Your task to perform on an android device: Go to calendar. Show me events next week Image 0: 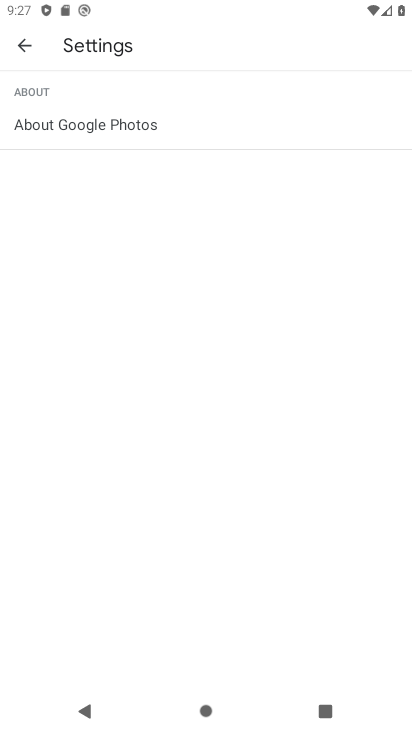
Step 0: press home button
Your task to perform on an android device: Go to calendar. Show me events next week Image 1: 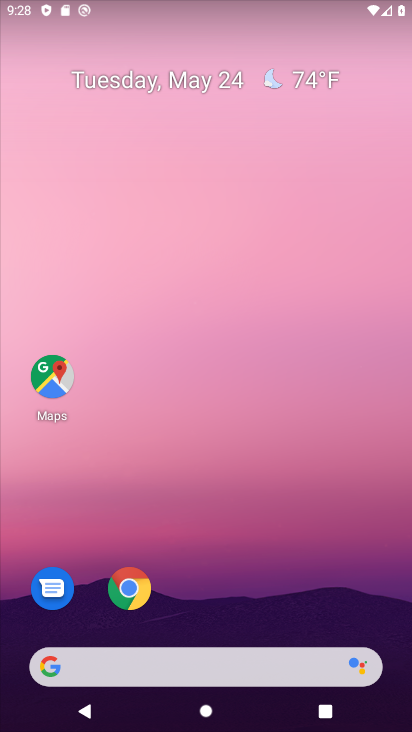
Step 1: click (178, 88)
Your task to perform on an android device: Go to calendar. Show me events next week Image 2: 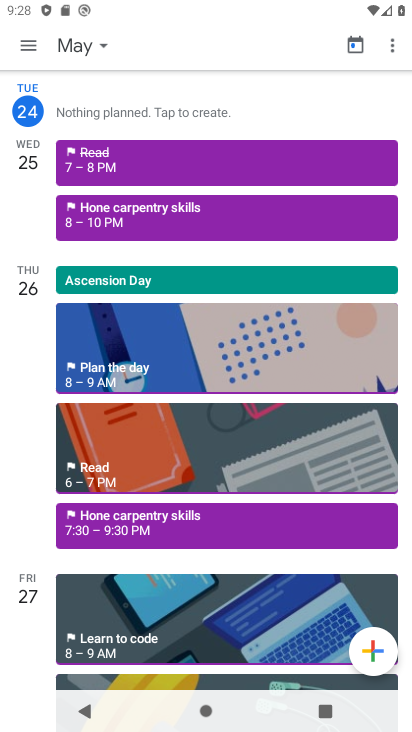
Step 2: click (93, 61)
Your task to perform on an android device: Go to calendar. Show me events next week Image 3: 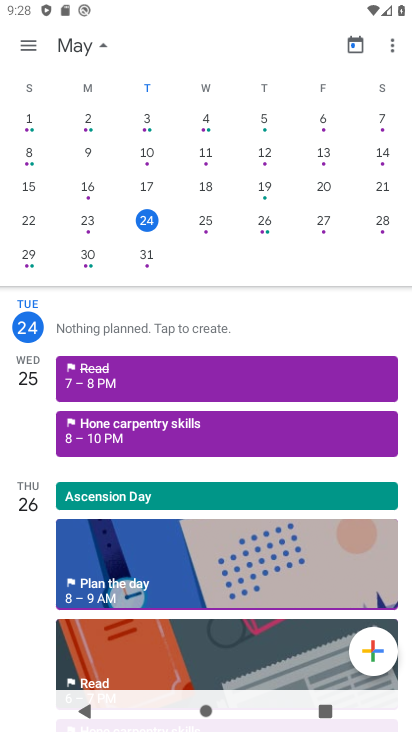
Step 3: click (88, 252)
Your task to perform on an android device: Go to calendar. Show me events next week Image 4: 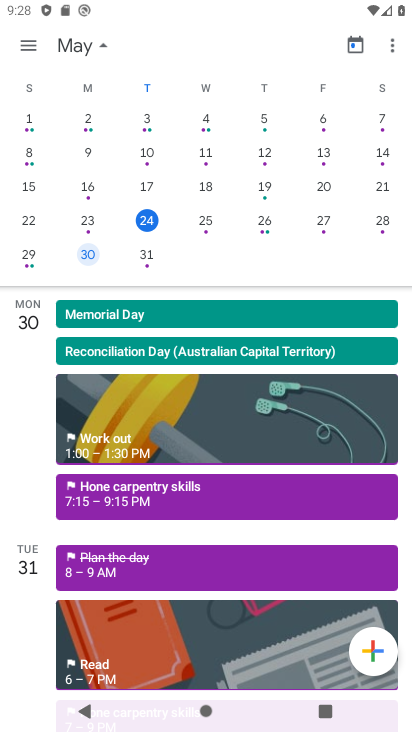
Step 4: click (156, 351)
Your task to perform on an android device: Go to calendar. Show me events next week Image 5: 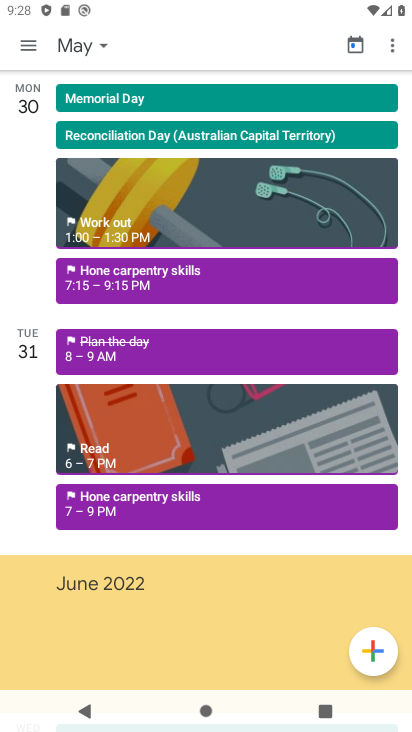
Step 5: task complete